Your task to perform on an android device: delete the emails in spam in the gmail app Image 0: 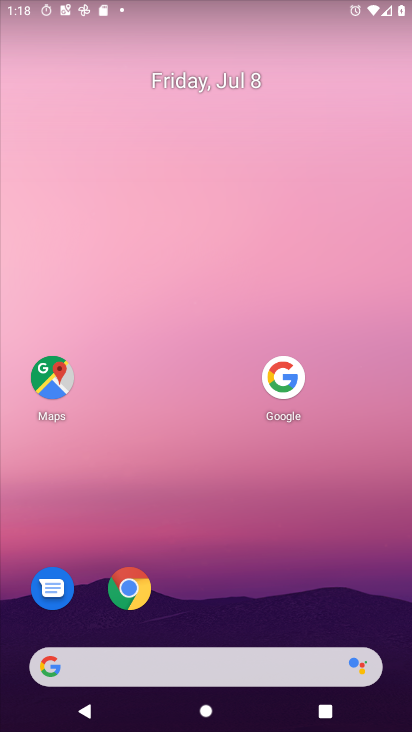
Step 0: drag from (176, 649) to (265, 210)
Your task to perform on an android device: delete the emails in spam in the gmail app Image 1: 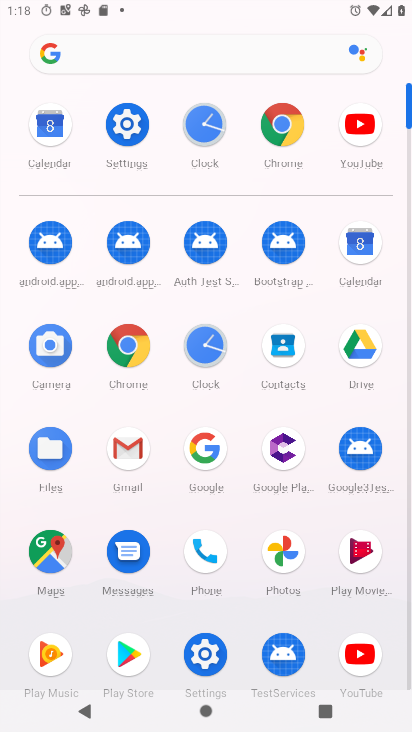
Step 1: click (128, 450)
Your task to perform on an android device: delete the emails in spam in the gmail app Image 2: 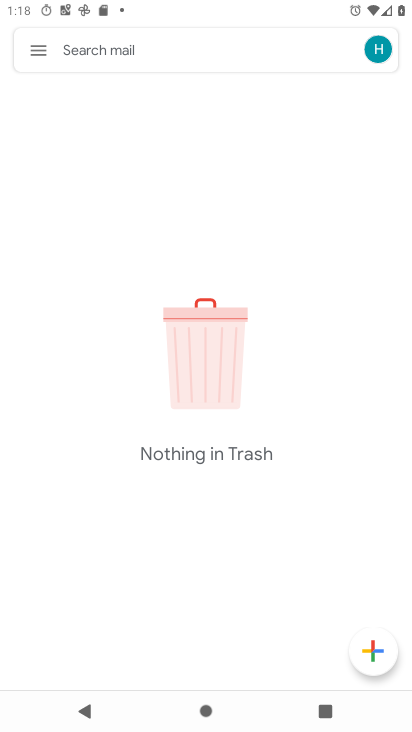
Step 2: click (40, 49)
Your task to perform on an android device: delete the emails in spam in the gmail app Image 3: 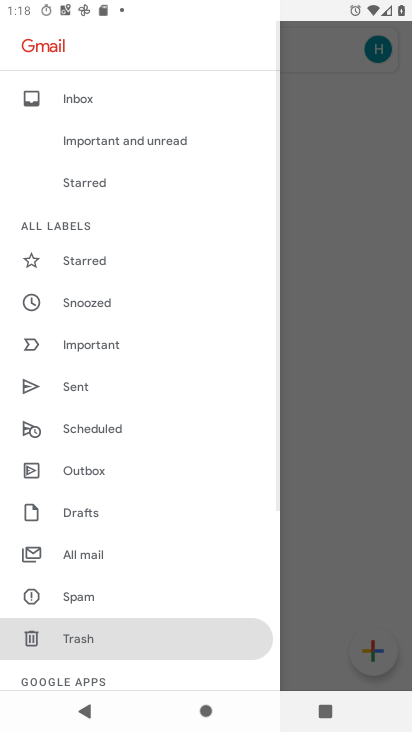
Step 3: click (86, 598)
Your task to perform on an android device: delete the emails in spam in the gmail app Image 4: 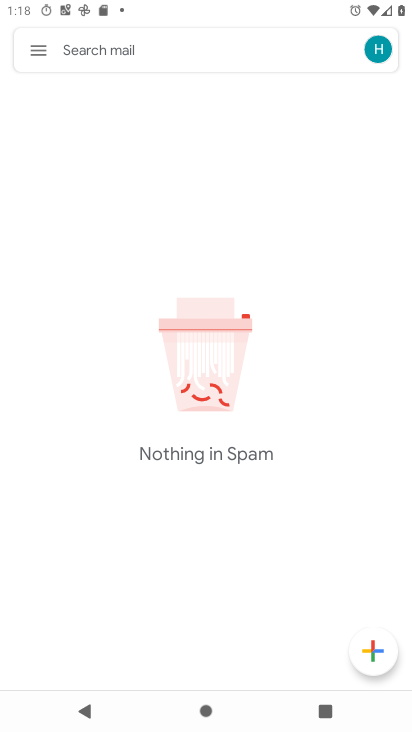
Step 4: task complete